Your task to perform on an android device: Open Google Maps and go to "Timeline" Image 0: 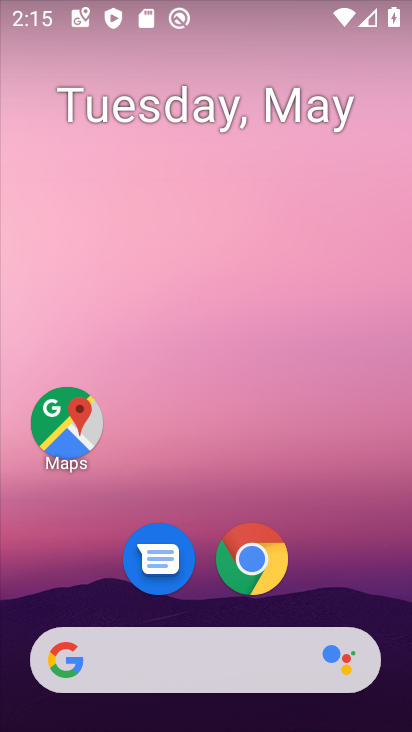
Step 0: drag from (187, 629) to (353, 195)
Your task to perform on an android device: Open Google Maps and go to "Timeline" Image 1: 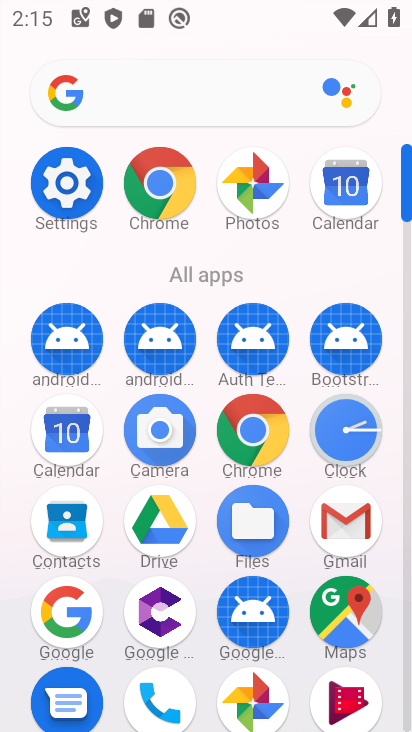
Step 1: click (352, 638)
Your task to perform on an android device: Open Google Maps and go to "Timeline" Image 2: 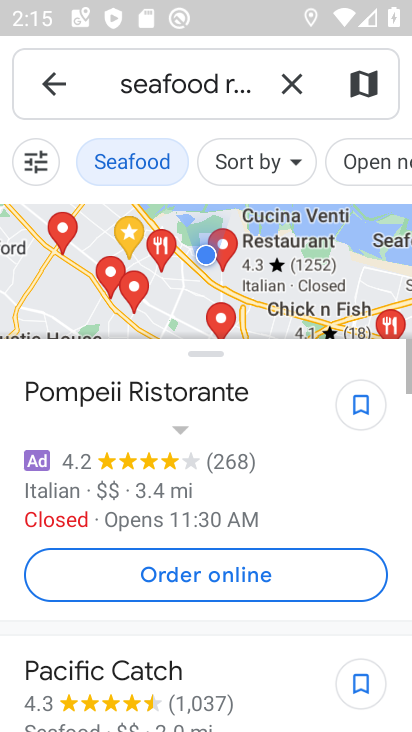
Step 2: click (56, 83)
Your task to perform on an android device: Open Google Maps and go to "Timeline" Image 3: 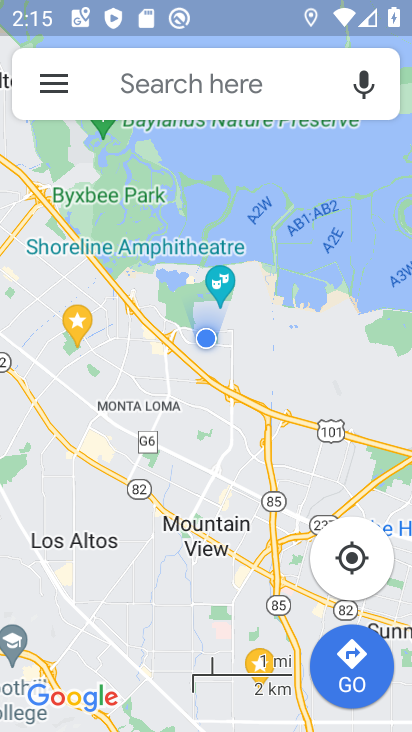
Step 3: click (56, 83)
Your task to perform on an android device: Open Google Maps and go to "Timeline" Image 4: 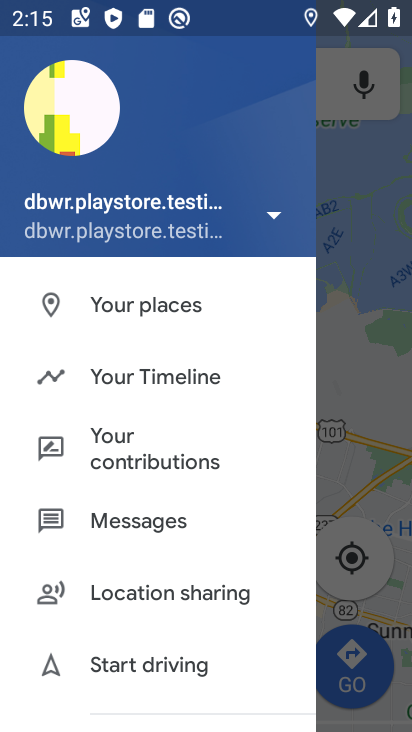
Step 4: click (119, 381)
Your task to perform on an android device: Open Google Maps and go to "Timeline" Image 5: 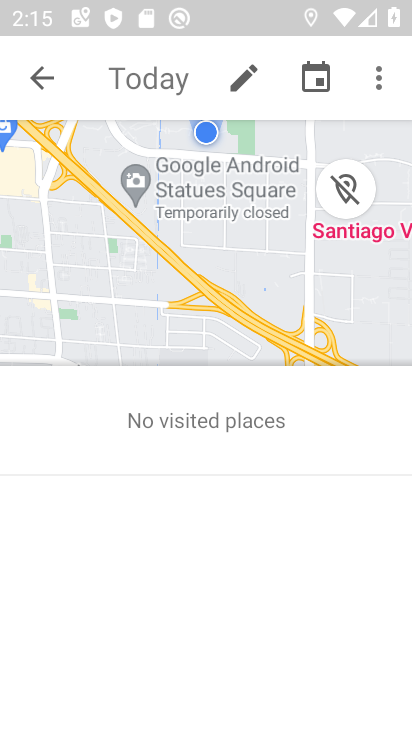
Step 5: task complete